Your task to perform on an android device: check the backup settings in the google photos Image 0: 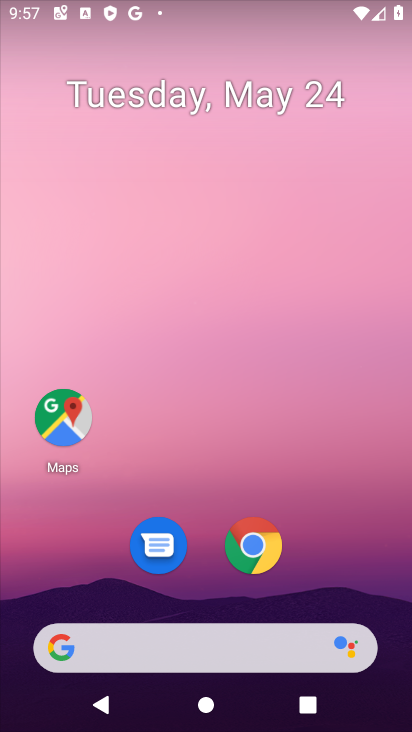
Step 0: drag from (201, 485) to (298, 60)
Your task to perform on an android device: check the backup settings in the google photos Image 1: 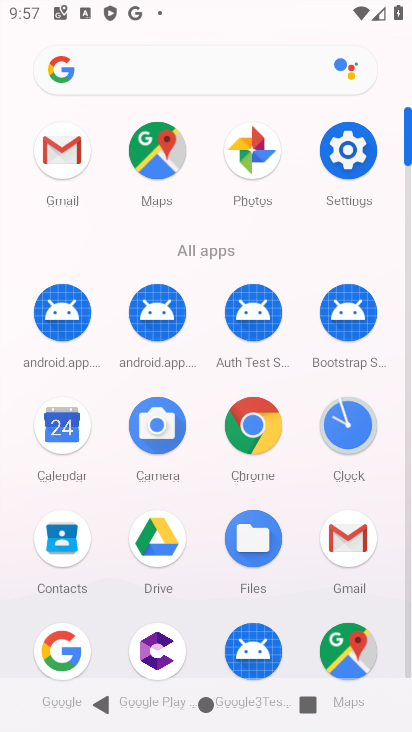
Step 1: click (254, 137)
Your task to perform on an android device: check the backup settings in the google photos Image 2: 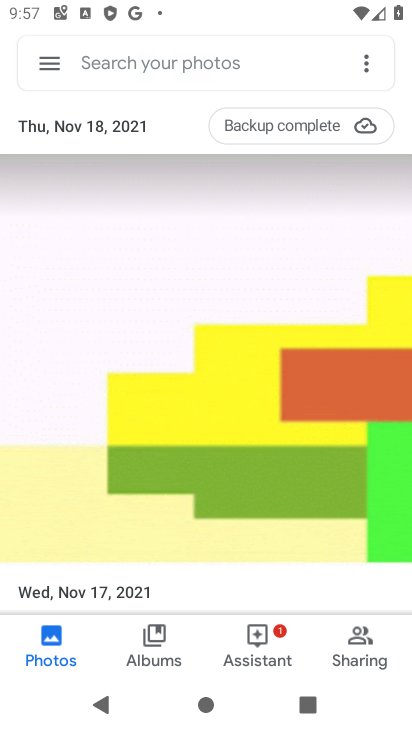
Step 2: click (54, 63)
Your task to perform on an android device: check the backup settings in the google photos Image 3: 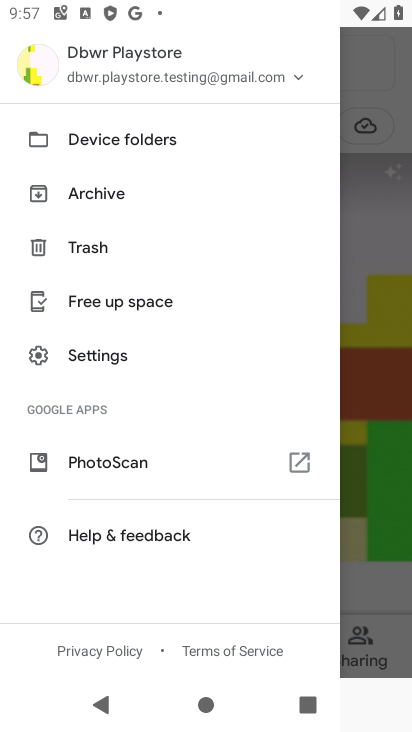
Step 3: click (80, 349)
Your task to perform on an android device: check the backup settings in the google photos Image 4: 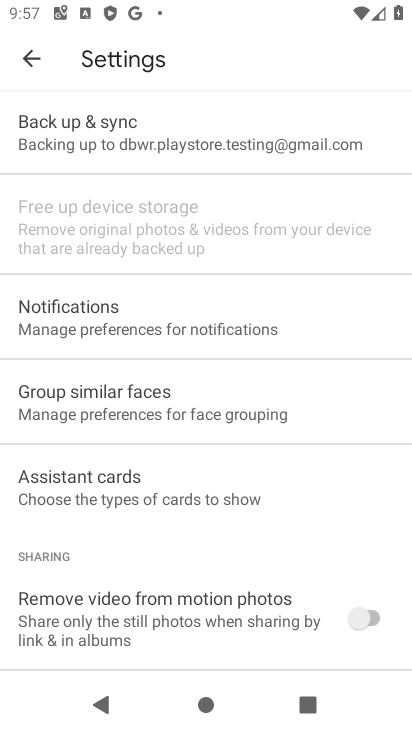
Step 4: click (172, 125)
Your task to perform on an android device: check the backup settings in the google photos Image 5: 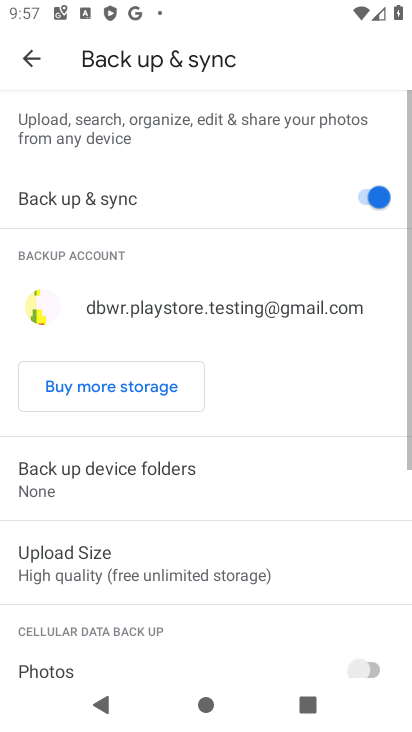
Step 5: task complete